Your task to perform on an android device: What's the weather? Image 0: 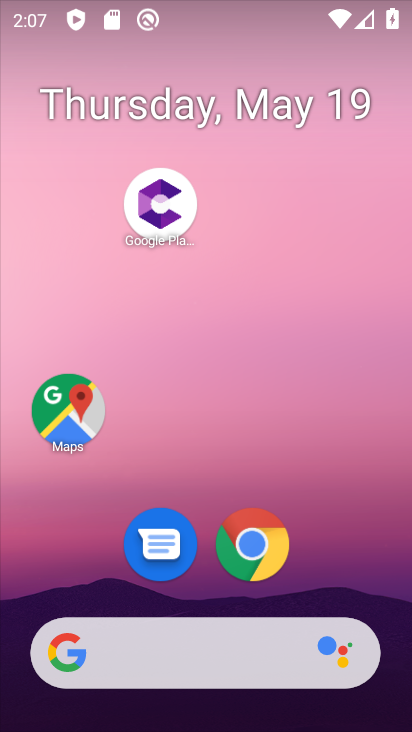
Step 0: press home button
Your task to perform on an android device: What's the weather? Image 1: 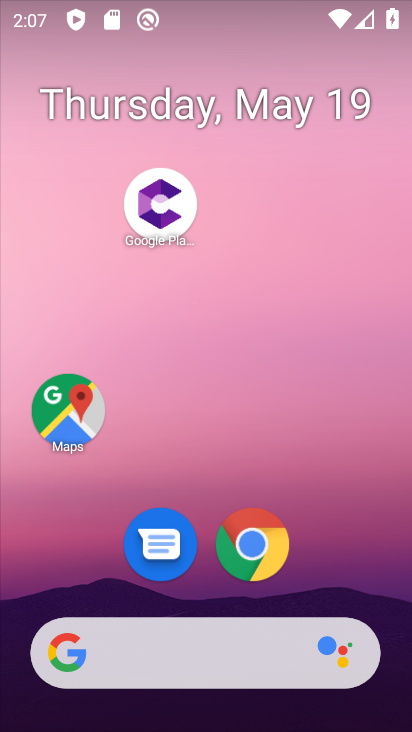
Step 1: drag from (222, 689) to (232, 242)
Your task to perform on an android device: What's the weather? Image 2: 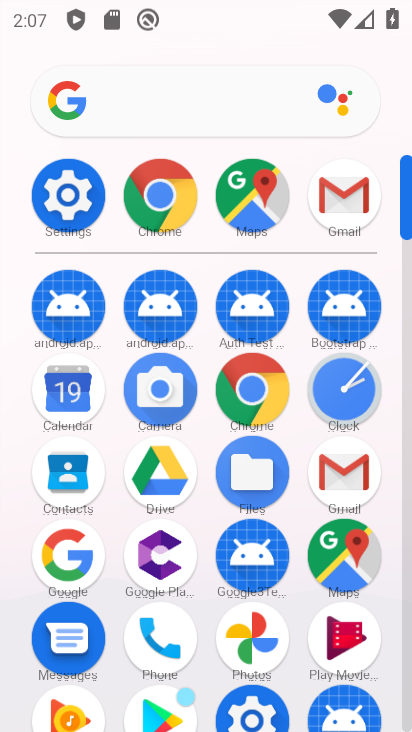
Step 2: click (146, 112)
Your task to perform on an android device: What's the weather? Image 3: 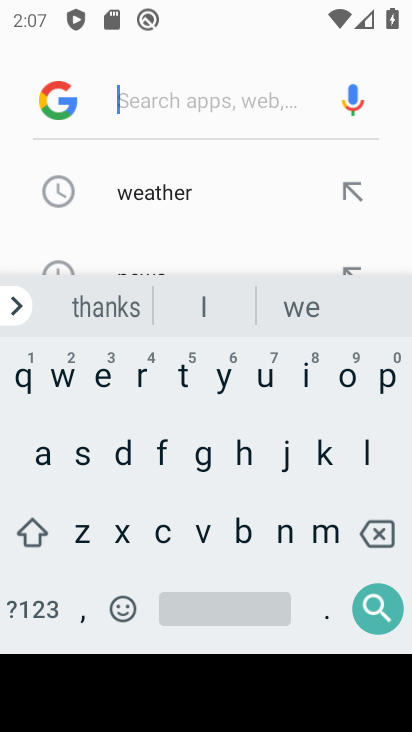
Step 3: click (160, 191)
Your task to perform on an android device: What's the weather? Image 4: 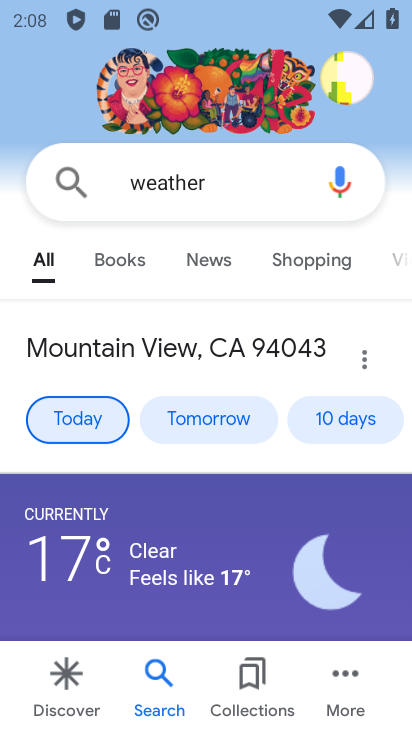
Step 4: task complete